Your task to perform on an android device: Search for seafood restaurants on Google Maps Image 0: 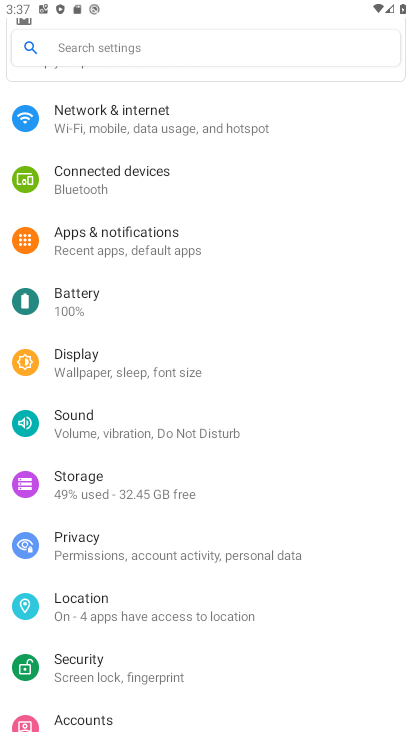
Step 0: press home button
Your task to perform on an android device: Search for seafood restaurants on Google Maps Image 1: 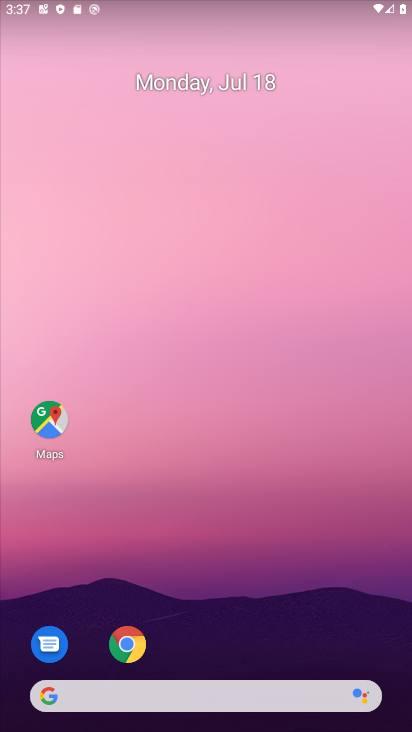
Step 1: click (48, 418)
Your task to perform on an android device: Search for seafood restaurants on Google Maps Image 2: 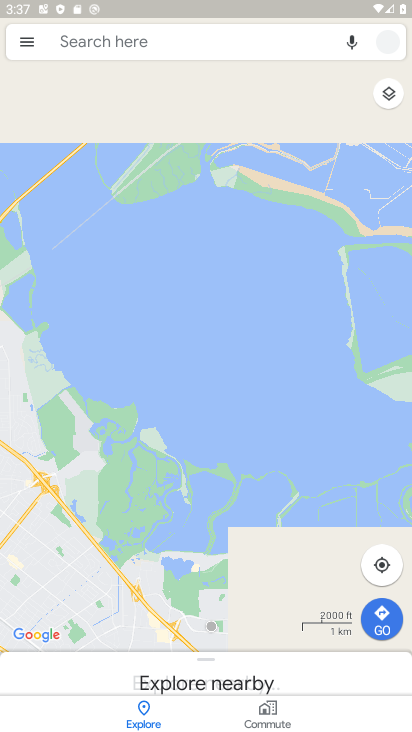
Step 2: click (100, 40)
Your task to perform on an android device: Search for seafood restaurants on Google Maps Image 3: 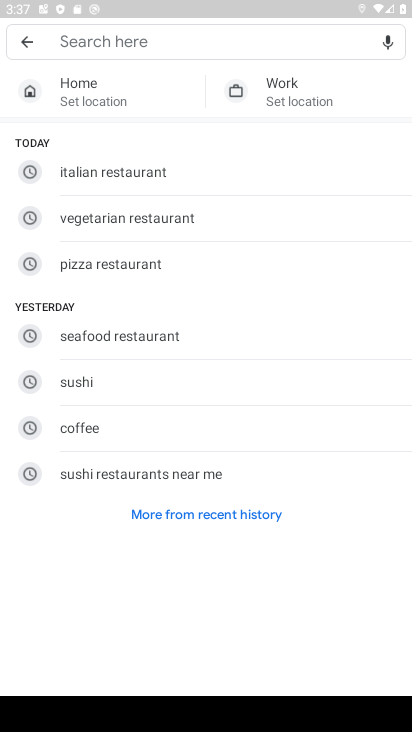
Step 3: type "seafood restaurants"
Your task to perform on an android device: Search for seafood restaurants on Google Maps Image 4: 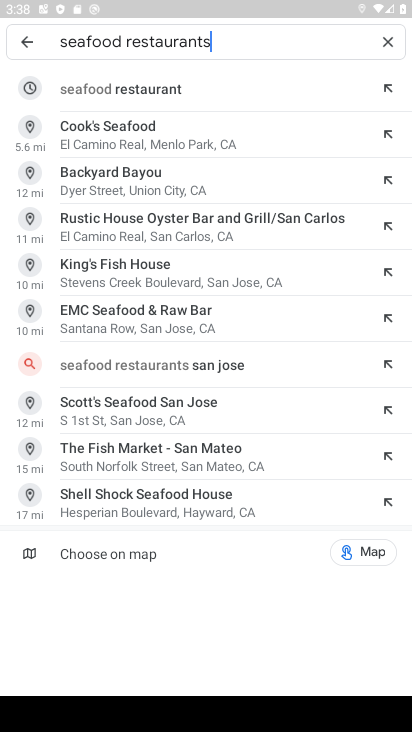
Step 4: click (103, 91)
Your task to perform on an android device: Search for seafood restaurants on Google Maps Image 5: 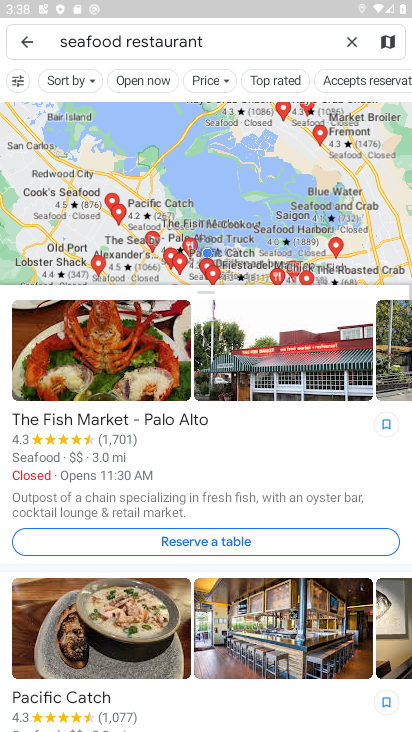
Step 5: drag from (191, 492) to (216, 216)
Your task to perform on an android device: Search for seafood restaurants on Google Maps Image 6: 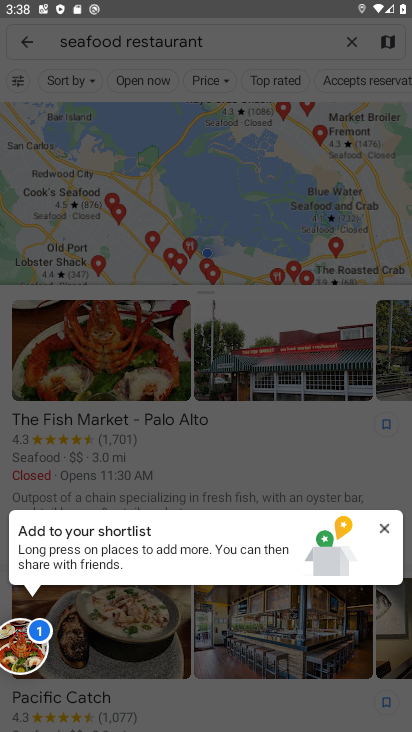
Step 6: click (383, 526)
Your task to perform on an android device: Search for seafood restaurants on Google Maps Image 7: 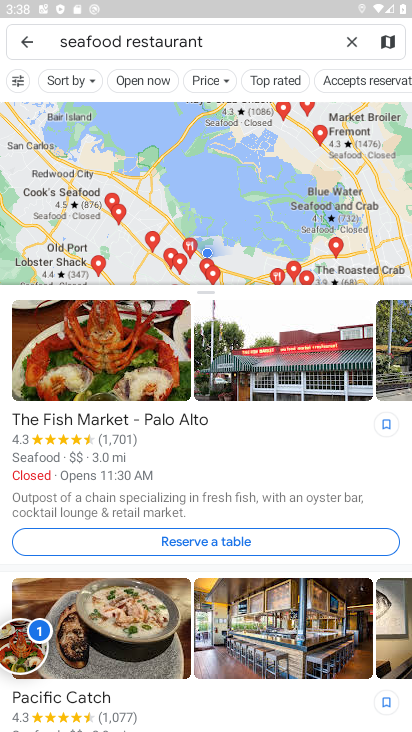
Step 7: task complete